Your task to perform on an android device: Search for sushi restaurants on Maps Image 0: 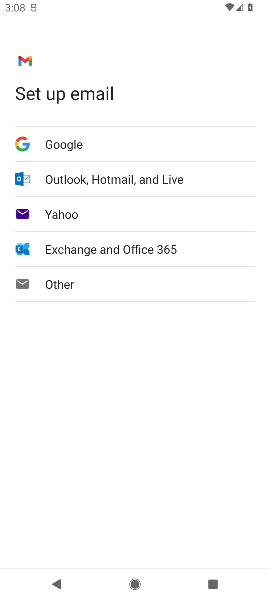
Step 0: press home button
Your task to perform on an android device: Search for sushi restaurants on Maps Image 1: 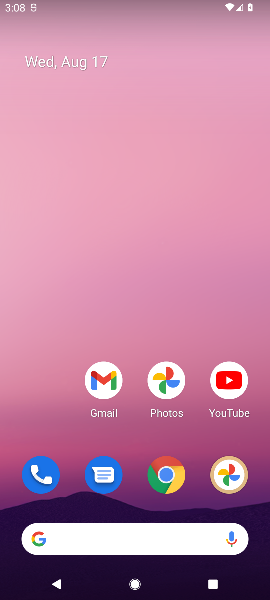
Step 1: drag from (135, 524) to (55, 50)
Your task to perform on an android device: Search for sushi restaurants on Maps Image 2: 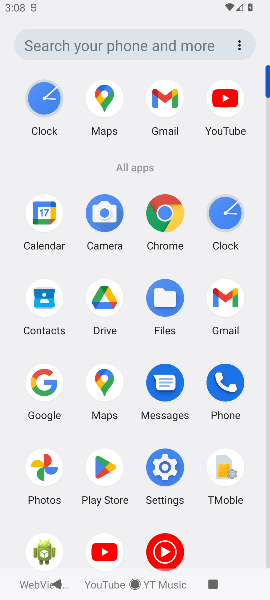
Step 2: click (93, 391)
Your task to perform on an android device: Search for sushi restaurants on Maps Image 3: 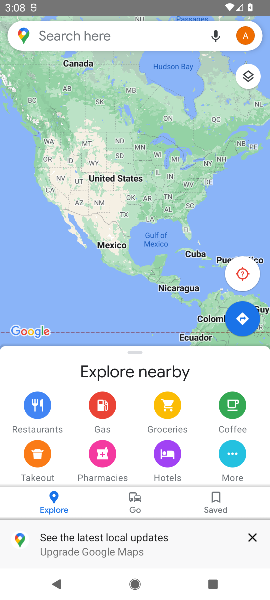
Step 3: click (118, 29)
Your task to perform on an android device: Search for sushi restaurants on Maps Image 4: 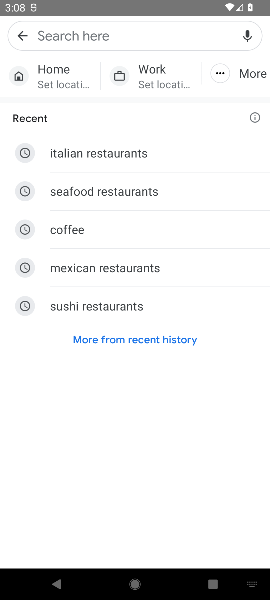
Step 4: click (42, 298)
Your task to perform on an android device: Search for sushi restaurants on Maps Image 5: 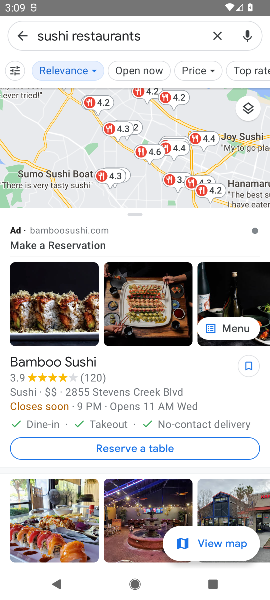
Step 5: task complete